Your task to perform on an android device: turn notification dots on Image 0: 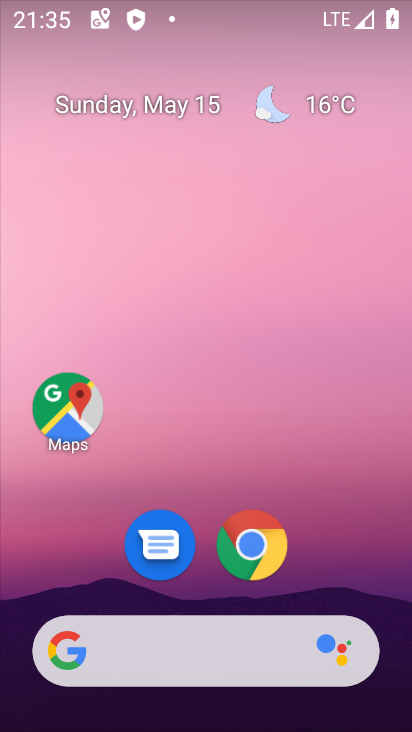
Step 0: drag from (339, 554) to (232, 149)
Your task to perform on an android device: turn notification dots on Image 1: 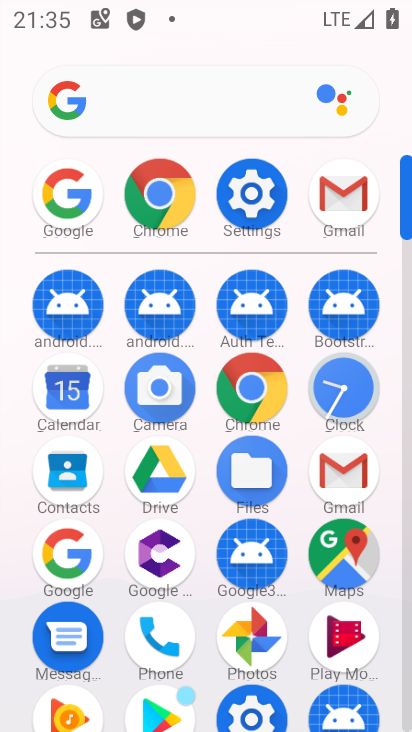
Step 1: click (253, 193)
Your task to perform on an android device: turn notification dots on Image 2: 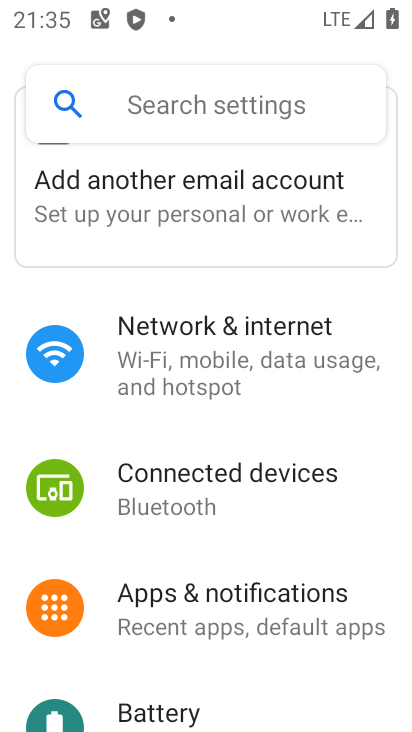
Step 2: drag from (174, 534) to (221, 430)
Your task to perform on an android device: turn notification dots on Image 3: 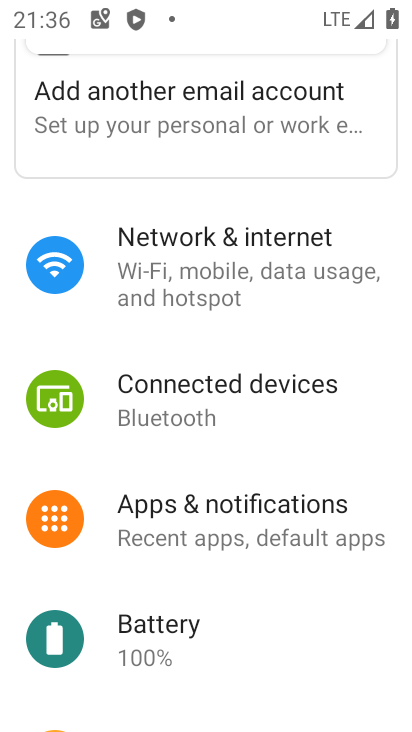
Step 3: click (217, 508)
Your task to perform on an android device: turn notification dots on Image 4: 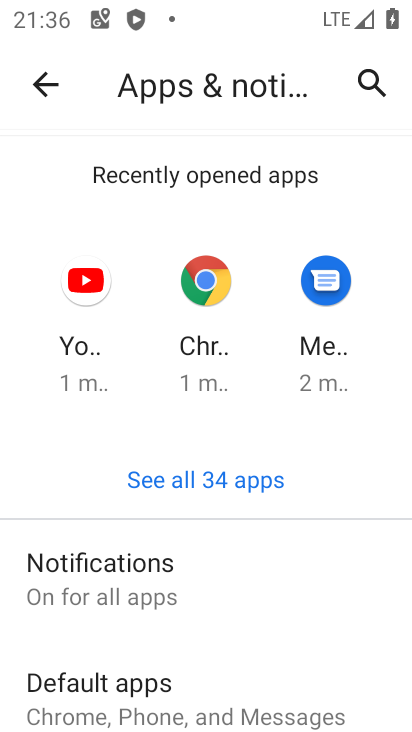
Step 4: click (86, 566)
Your task to perform on an android device: turn notification dots on Image 5: 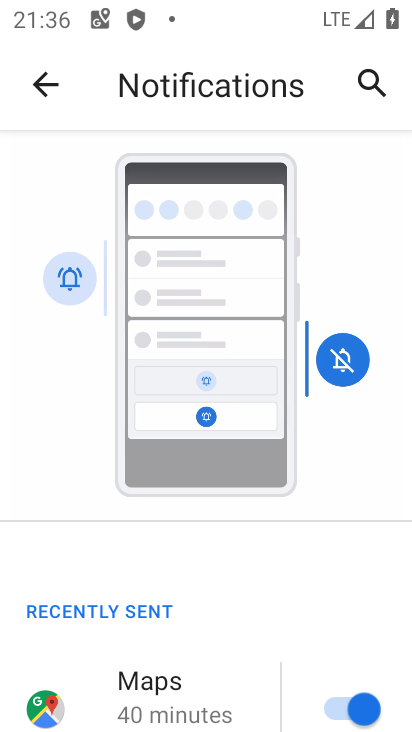
Step 5: drag from (212, 620) to (253, 481)
Your task to perform on an android device: turn notification dots on Image 6: 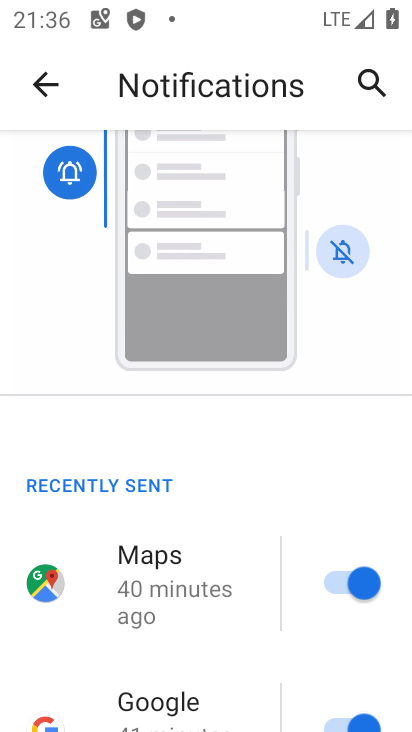
Step 6: drag from (176, 658) to (266, 526)
Your task to perform on an android device: turn notification dots on Image 7: 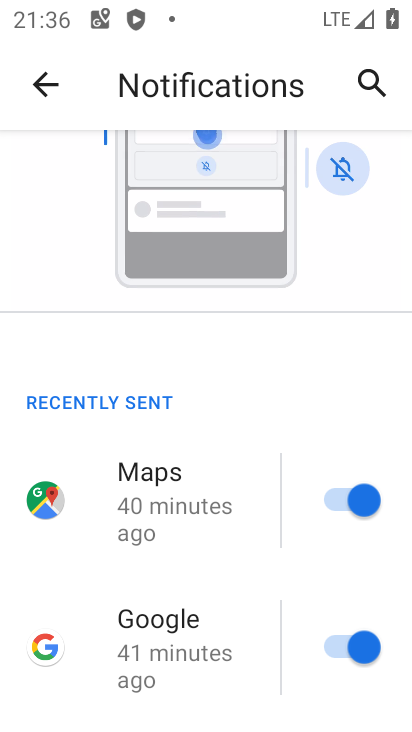
Step 7: drag from (182, 719) to (263, 472)
Your task to perform on an android device: turn notification dots on Image 8: 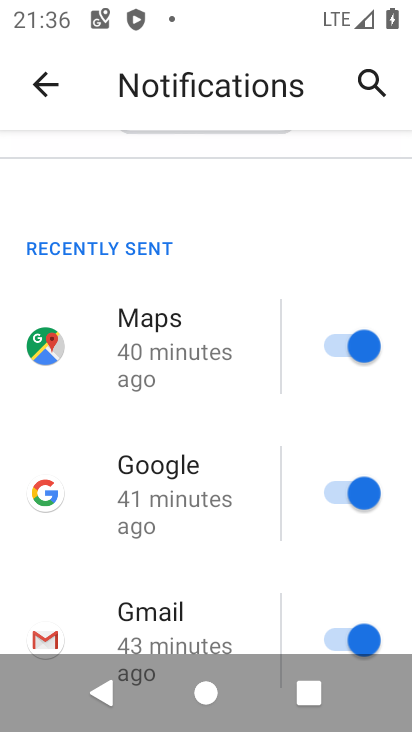
Step 8: drag from (211, 571) to (329, 216)
Your task to perform on an android device: turn notification dots on Image 9: 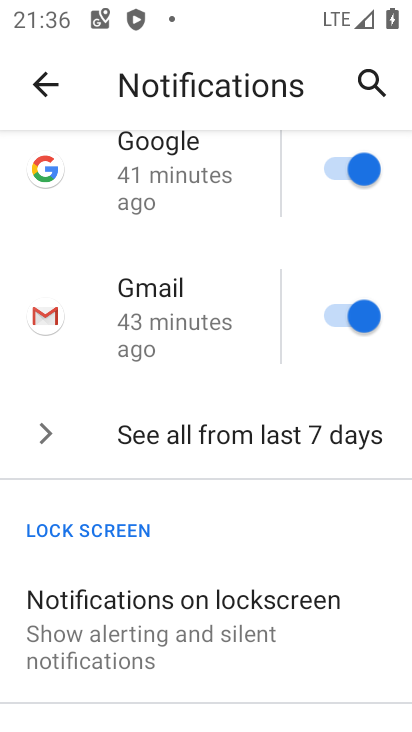
Step 9: drag from (174, 541) to (222, 368)
Your task to perform on an android device: turn notification dots on Image 10: 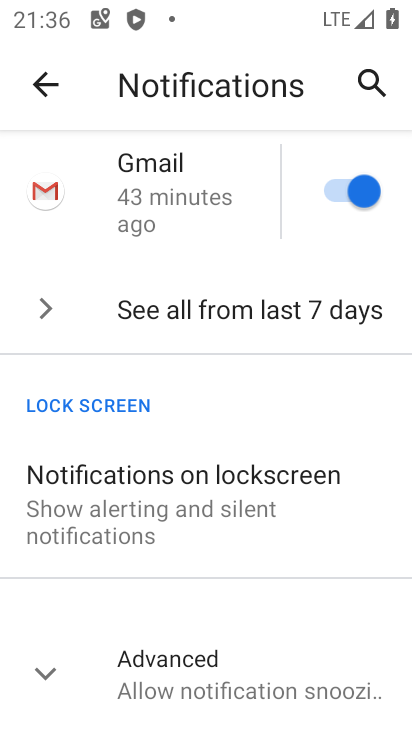
Step 10: click (194, 683)
Your task to perform on an android device: turn notification dots on Image 11: 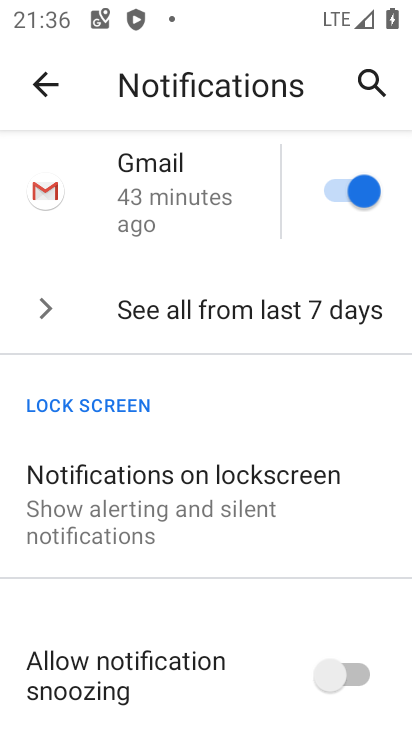
Step 11: task complete